Your task to perform on an android device: turn off improve location accuracy Image 0: 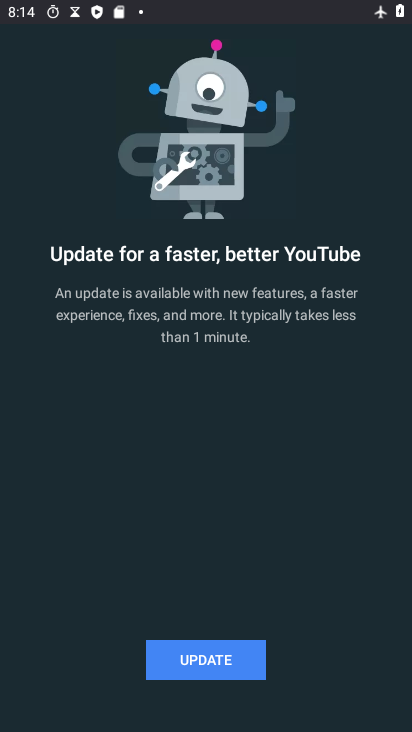
Step 0: press home button
Your task to perform on an android device: turn off improve location accuracy Image 1: 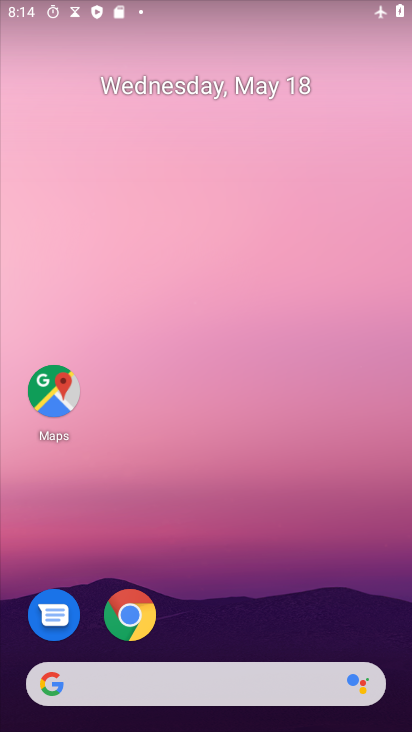
Step 1: drag from (228, 632) to (318, 150)
Your task to perform on an android device: turn off improve location accuracy Image 2: 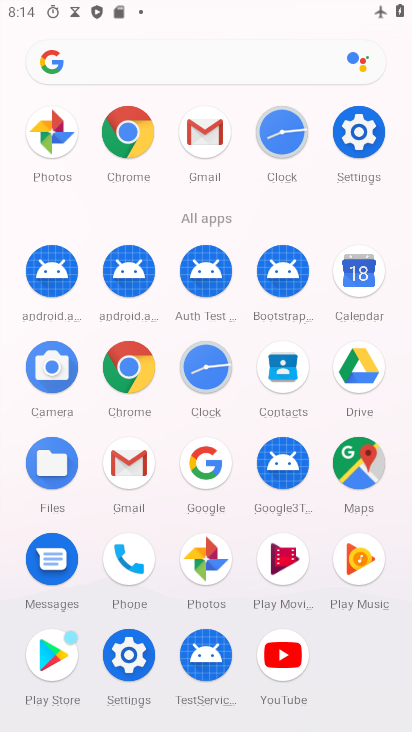
Step 2: click (332, 135)
Your task to perform on an android device: turn off improve location accuracy Image 3: 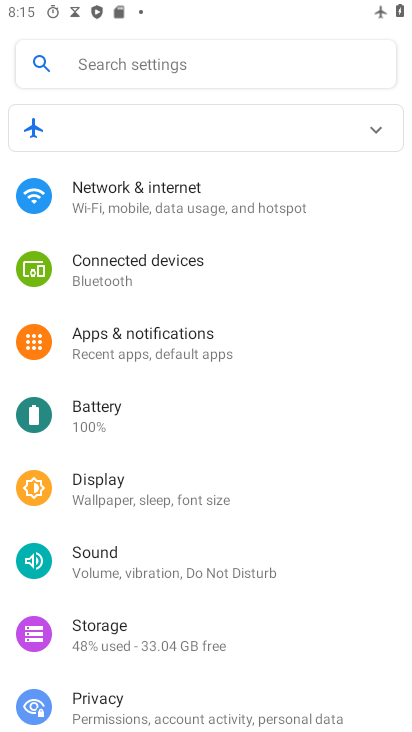
Step 3: drag from (177, 598) to (202, 276)
Your task to perform on an android device: turn off improve location accuracy Image 4: 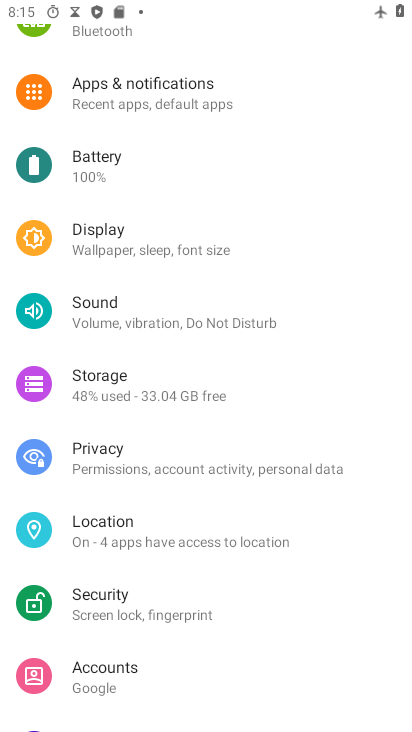
Step 4: click (140, 532)
Your task to perform on an android device: turn off improve location accuracy Image 5: 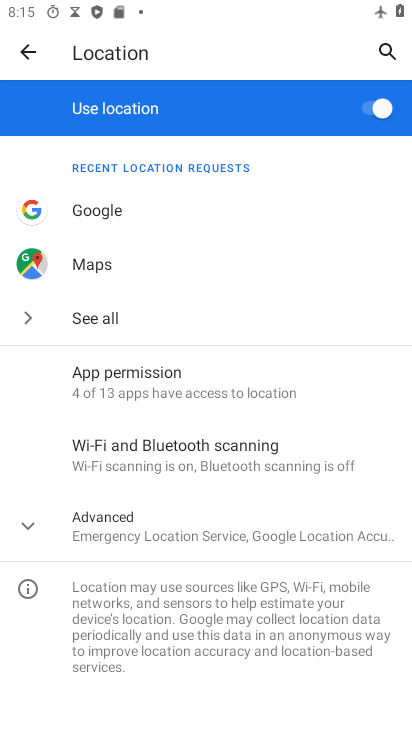
Step 5: click (203, 538)
Your task to perform on an android device: turn off improve location accuracy Image 6: 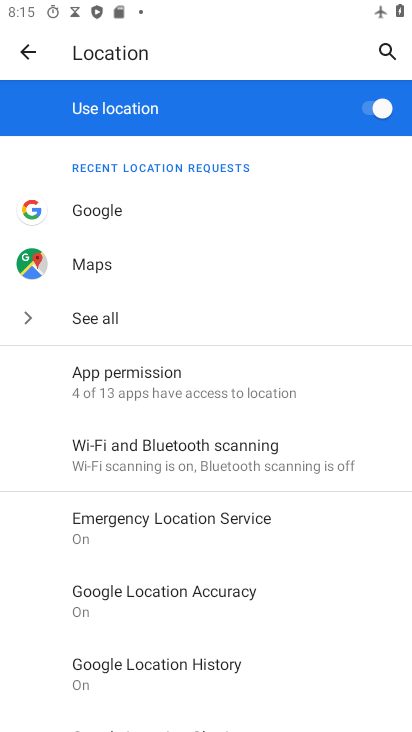
Step 6: click (215, 596)
Your task to perform on an android device: turn off improve location accuracy Image 7: 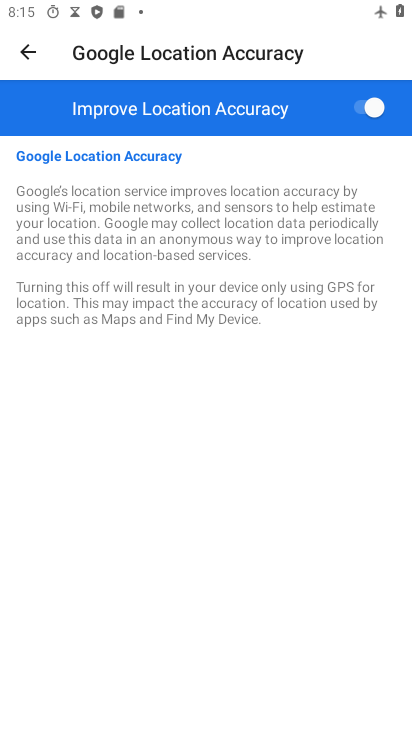
Step 7: click (363, 102)
Your task to perform on an android device: turn off improve location accuracy Image 8: 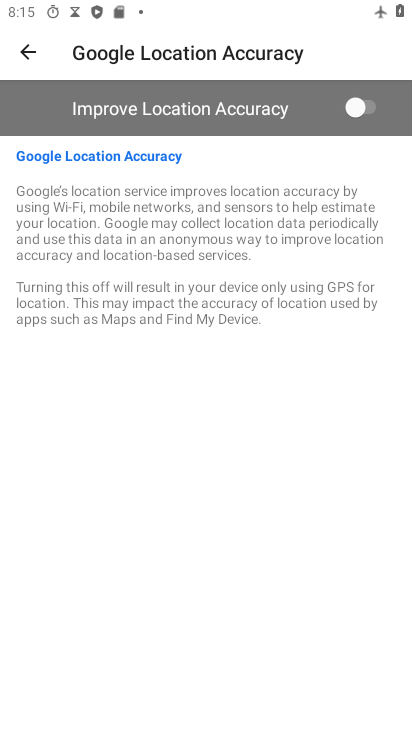
Step 8: task complete